Your task to perform on an android device: Open calendar and show me the first week of next month Image 0: 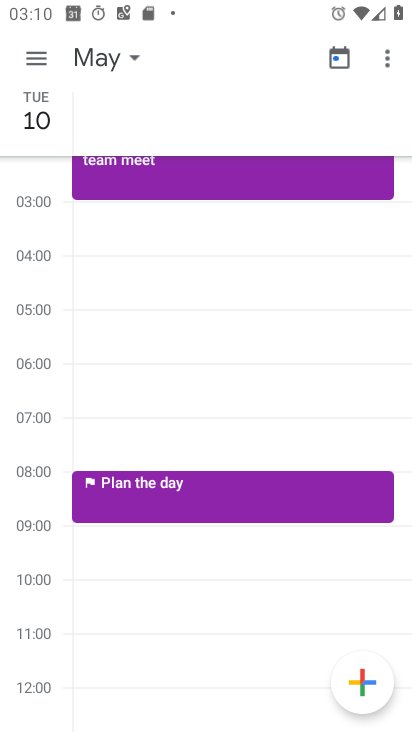
Step 0: press home button
Your task to perform on an android device: Open calendar and show me the first week of next month Image 1: 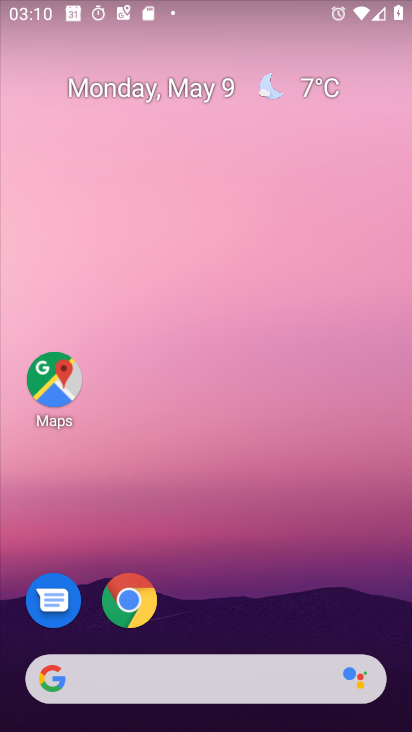
Step 1: drag from (219, 700) to (115, 190)
Your task to perform on an android device: Open calendar and show me the first week of next month Image 2: 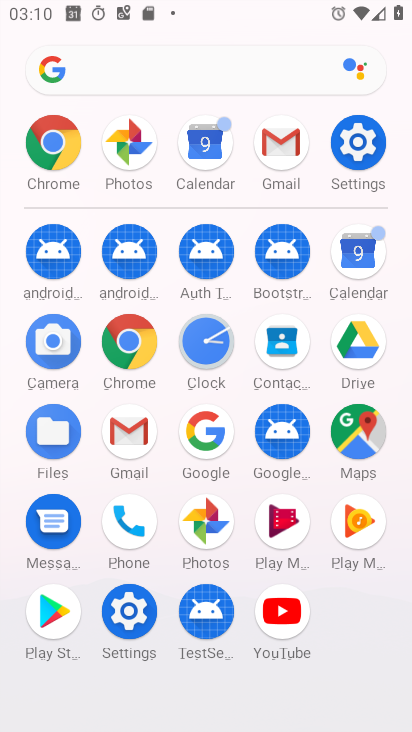
Step 2: click (342, 248)
Your task to perform on an android device: Open calendar and show me the first week of next month Image 3: 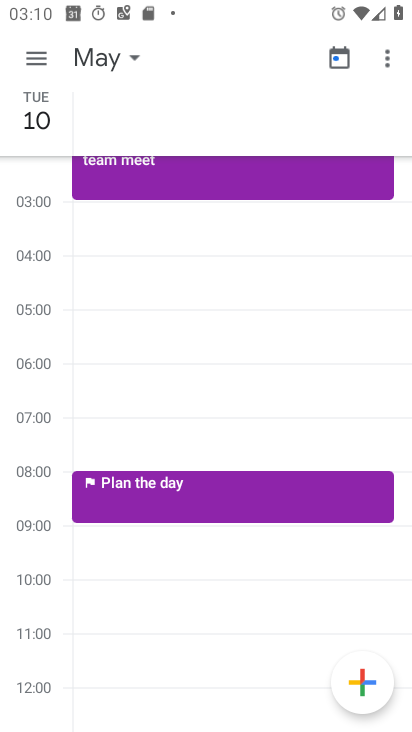
Step 3: click (33, 56)
Your task to perform on an android device: Open calendar and show me the first week of next month Image 4: 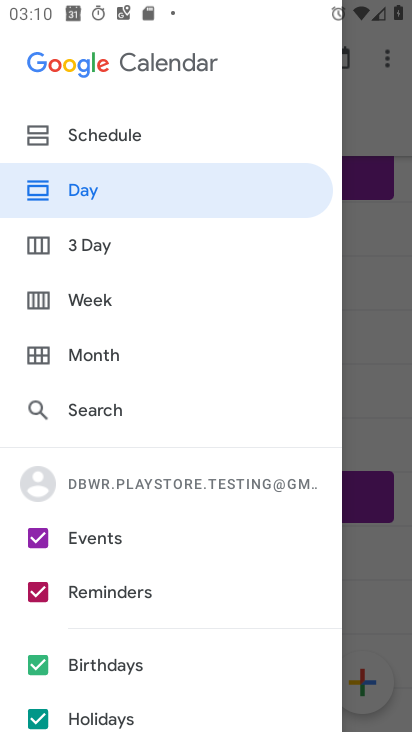
Step 4: click (107, 363)
Your task to perform on an android device: Open calendar and show me the first week of next month Image 5: 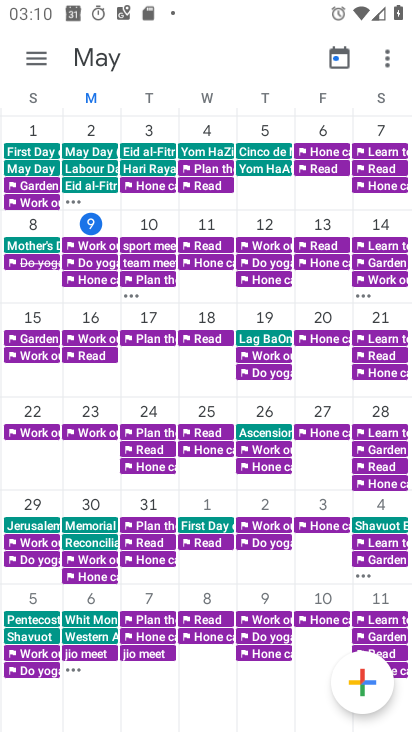
Step 5: task complete